Your task to perform on an android device: Open settings on Google Maps Image 0: 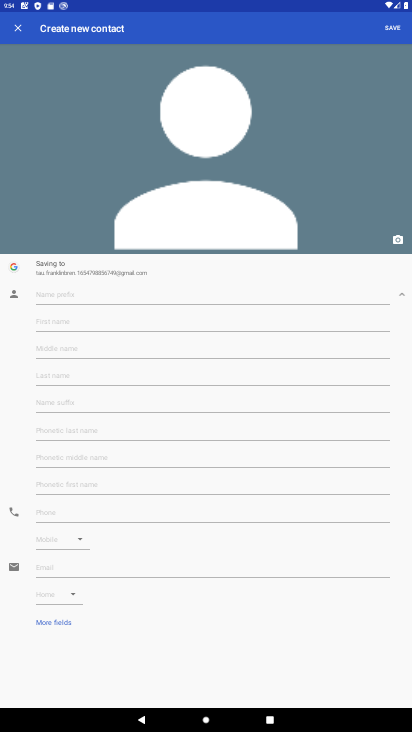
Step 0: press home button
Your task to perform on an android device: Open settings on Google Maps Image 1: 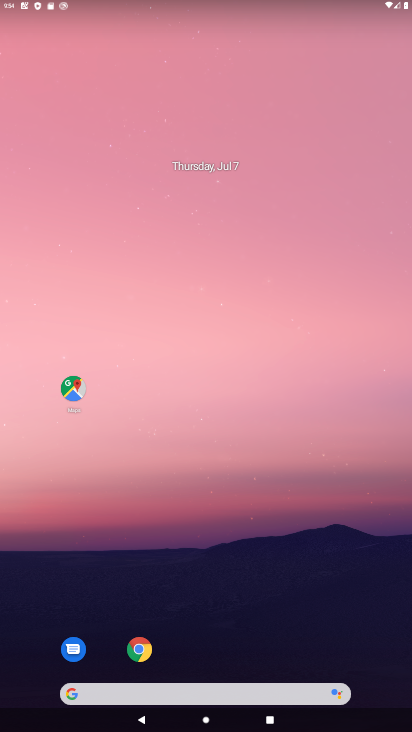
Step 1: drag from (271, 580) to (335, 181)
Your task to perform on an android device: Open settings on Google Maps Image 2: 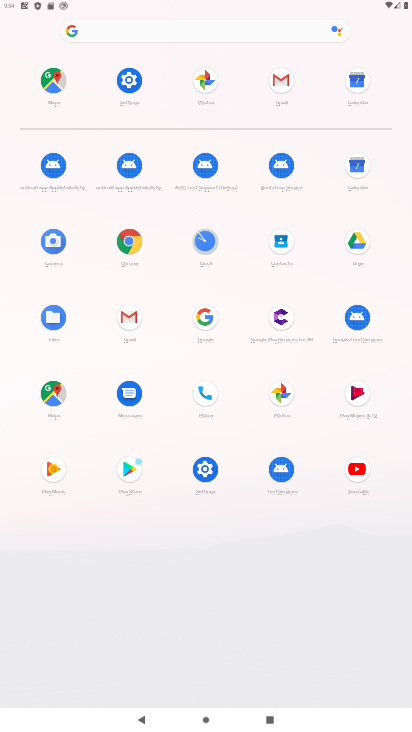
Step 2: click (52, 389)
Your task to perform on an android device: Open settings on Google Maps Image 3: 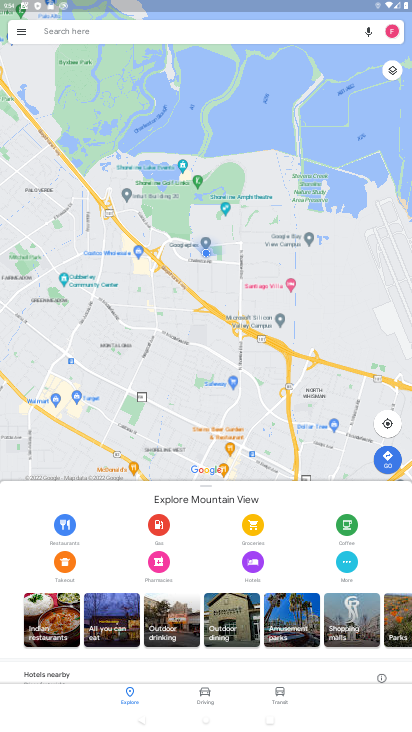
Step 3: click (19, 28)
Your task to perform on an android device: Open settings on Google Maps Image 4: 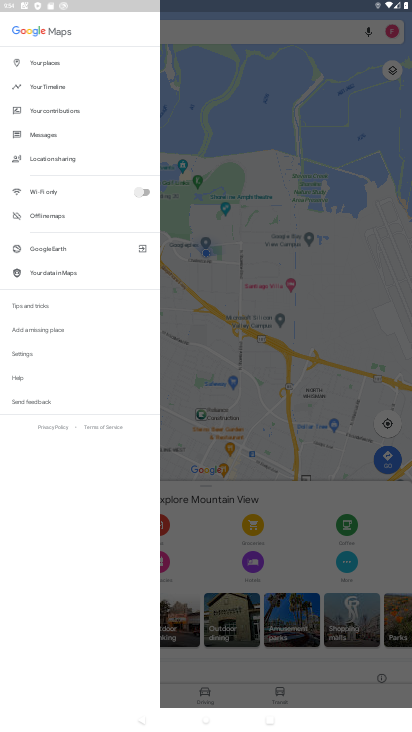
Step 4: click (25, 351)
Your task to perform on an android device: Open settings on Google Maps Image 5: 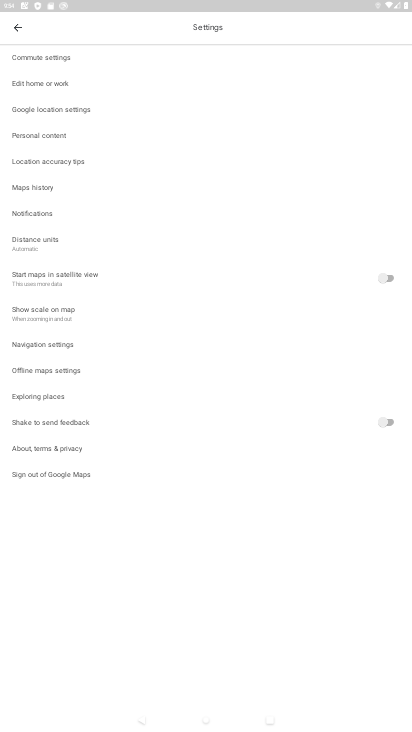
Step 5: task complete